Your task to perform on an android device: Go to Android settings Image 0: 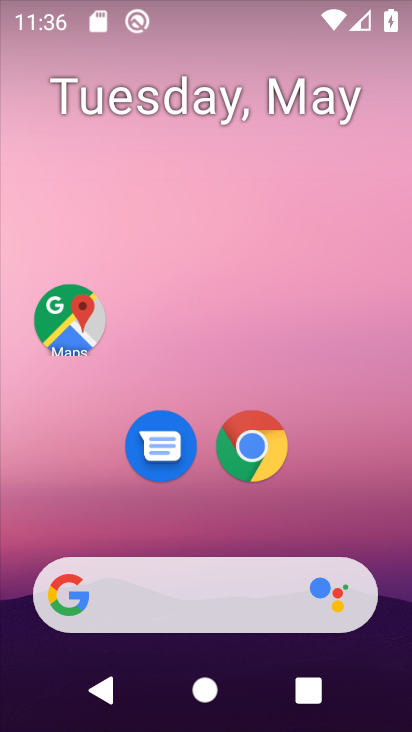
Step 0: press home button
Your task to perform on an android device: Go to Android settings Image 1: 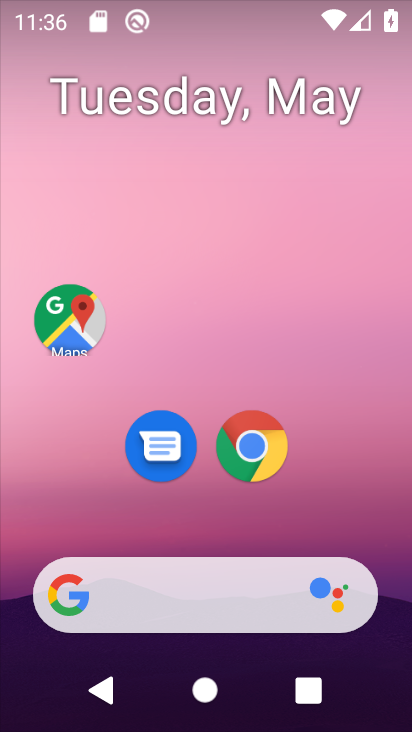
Step 1: drag from (378, 418) to (319, 25)
Your task to perform on an android device: Go to Android settings Image 2: 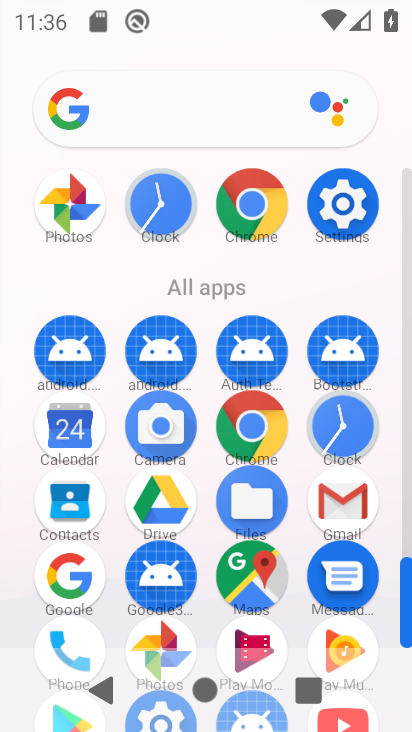
Step 2: click (338, 199)
Your task to perform on an android device: Go to Android settings Image 3: 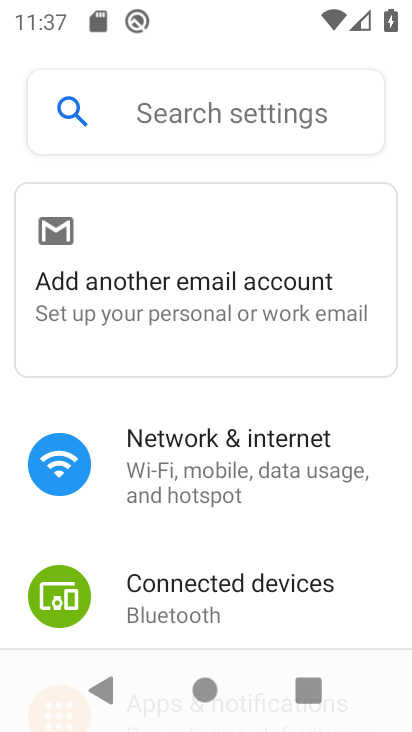
Step 3: drag from (317, 599) to (285, 259)
Your task to perform on an android device: Go to Android settings Image 4: 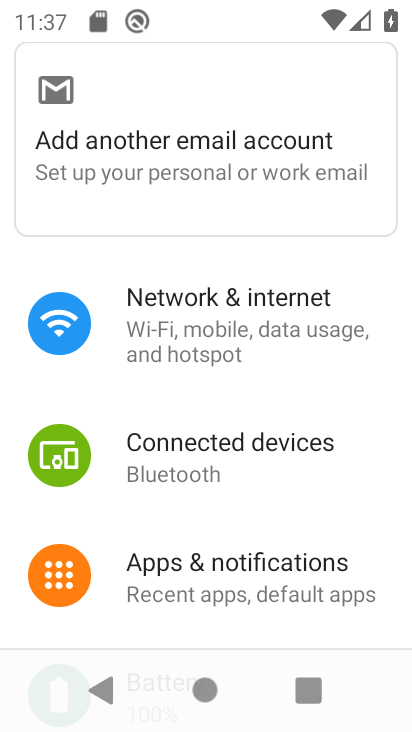
Step 4: drag from (329, 558) to (293, 274)
Your task to perform on an android device: Go to Android settings Image 5: 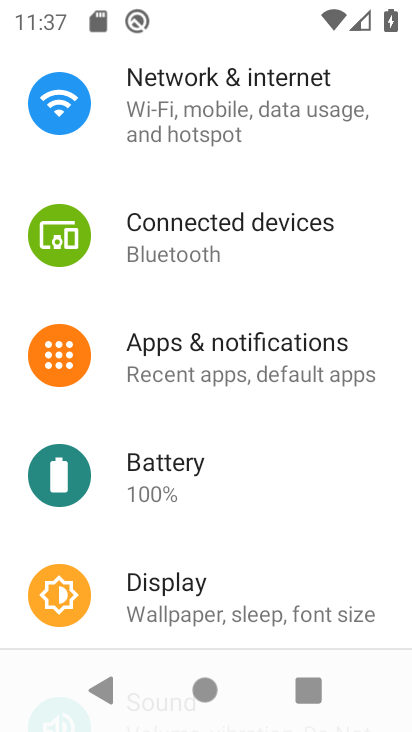
Step 5: drag from (299, 500) to (304, 220)
Your task to perform on an android device: Go to Android settings Image 6: 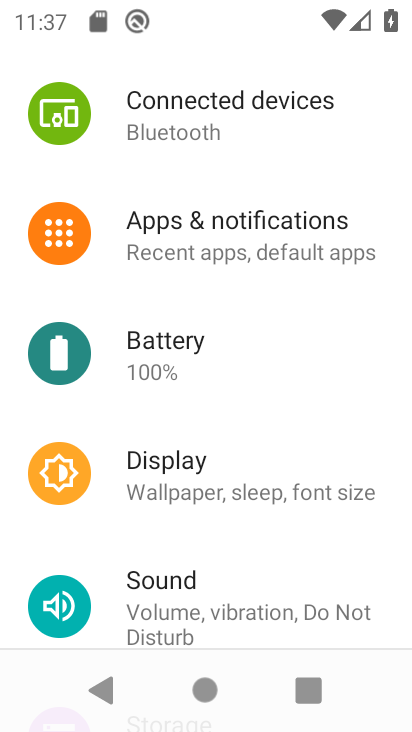
Step 6: drag from (290, 573) to (267, 320)
Your task to perform on an android device: Go to Android settings Image 7: 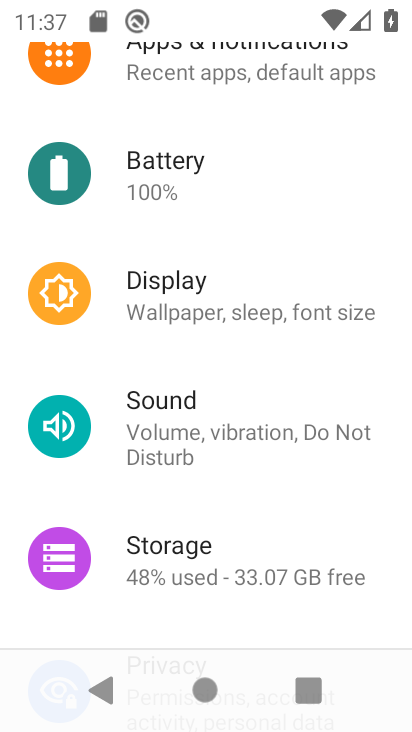
Step 7: drag from (260, 561) to (214, 347)
Your task to perform on an android device: Go to Android settings Image 8: 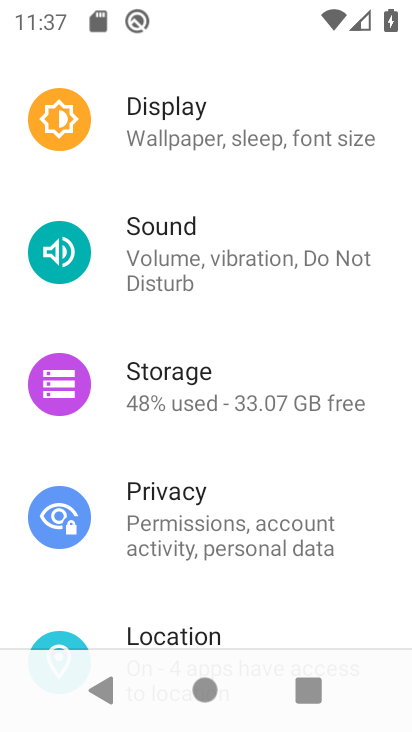
Step 8: drag from (304, 696) to (302, 605)
Your task to perform on an android device: Go to Android settings Image 9: 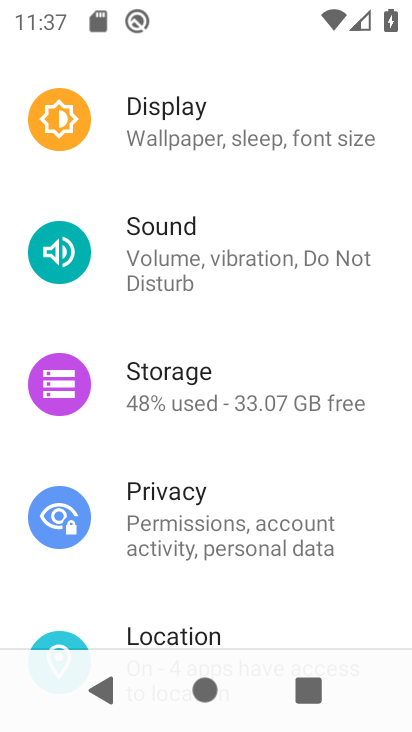
Step 9: drag from (297, 584) to (307, 244)
Your task to perform on an android device: Go to Android settings Image 10: 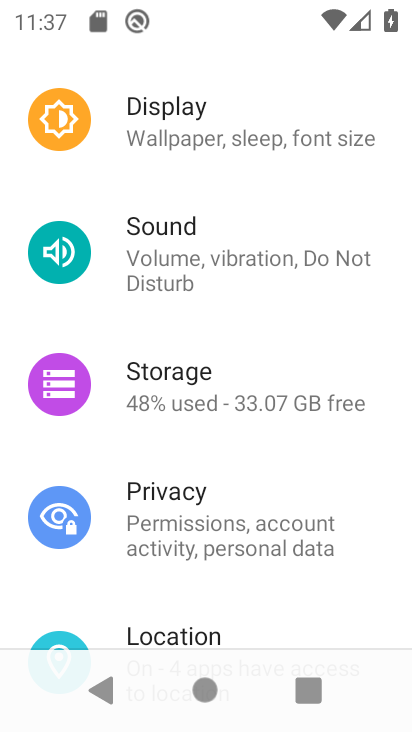
Step 10: drag from (186, 593) to (203, 446)
Your task to perform on an android device: Go to Android settings Image 11: 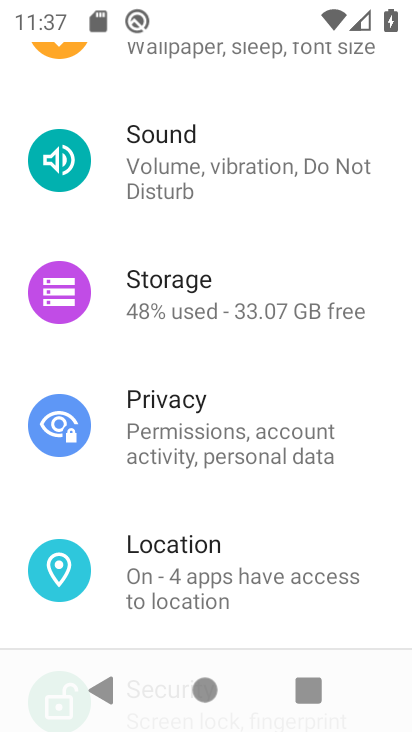
Step 11: drag from (203, 610) to (200, 560)
Your task to perform on an android device: Go to Android settings Image 12: 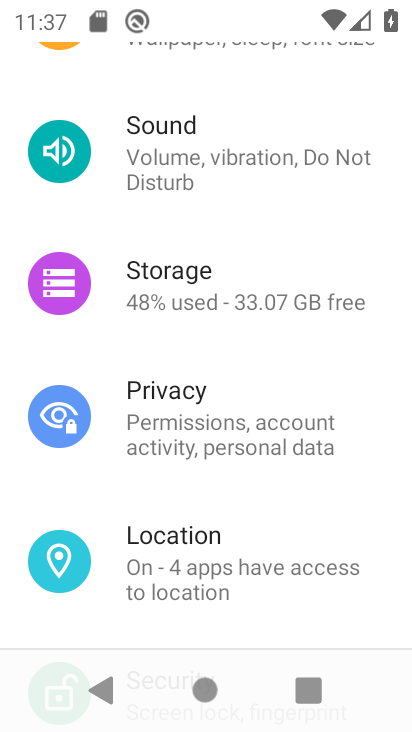
Step 12: drag from (202, 553) to (88, 17)
Your task to perform on an android device: Go to Android settings Image 13: 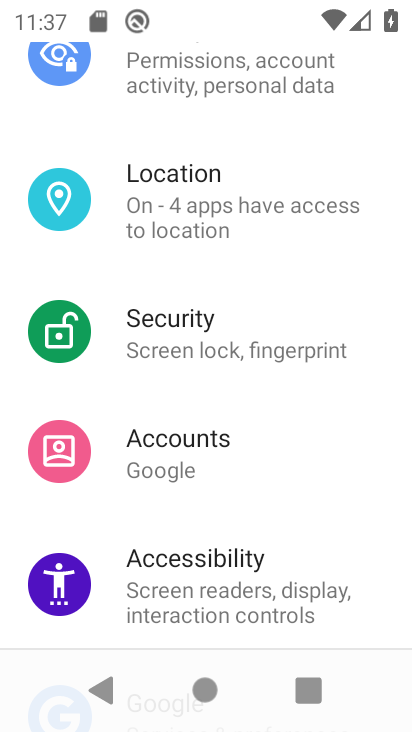
Step 13: drag from (222, 597) to (212, 14)
Your task to perform on an android device: Go to Android settings Image 14: 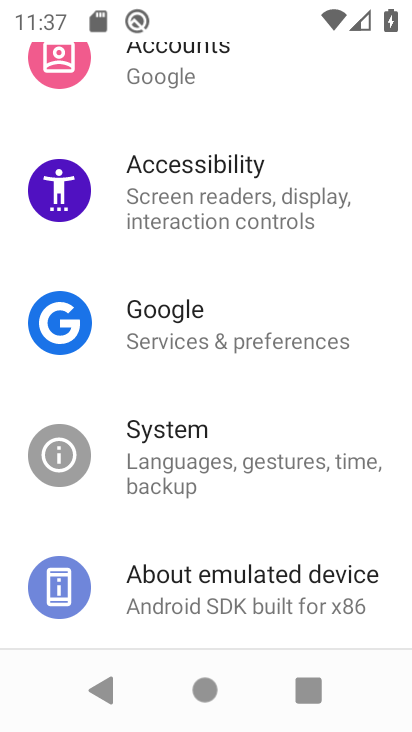
Step 14: click (129, 576)
Your task to perform on an android device: Go to Android settings Image 15: 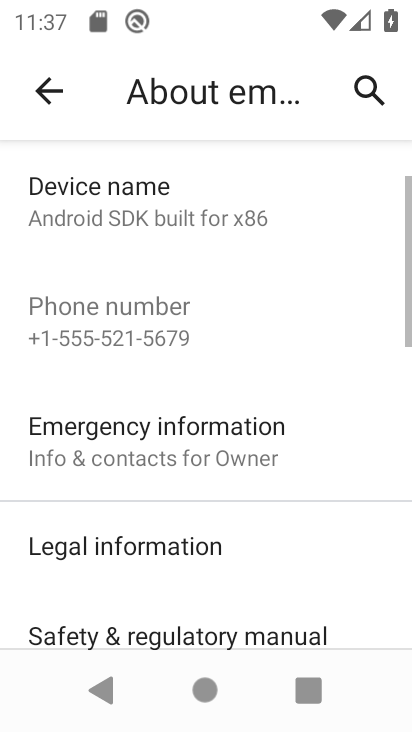
Step 15: drag from (220, 543) to (275, 123)
Your task to perform on an android device: Go to Android settings Image 16: 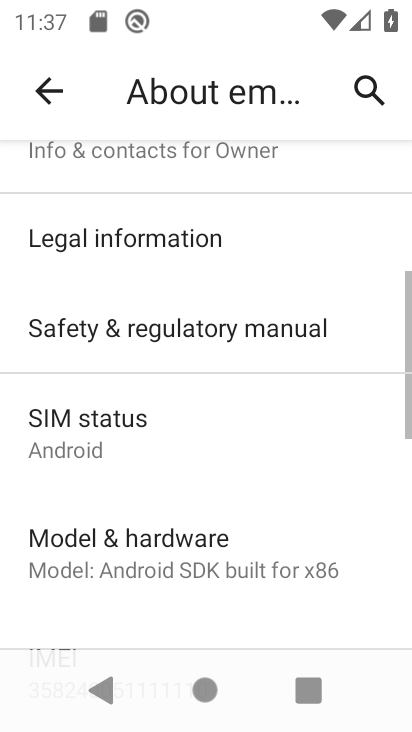
Step 16: drag from (162, 561) to (177, 240)
Your task to perform on an android device: Go to Android settings Image 17: 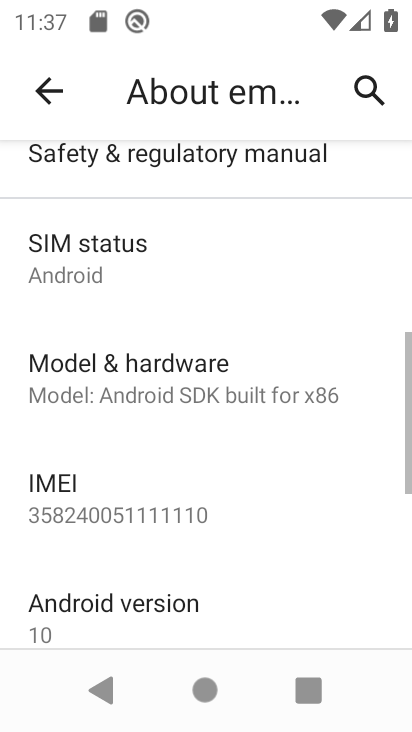
Step 17: click (159, 608)
Your task to perform on an android device: Go to Android settings Image 18: 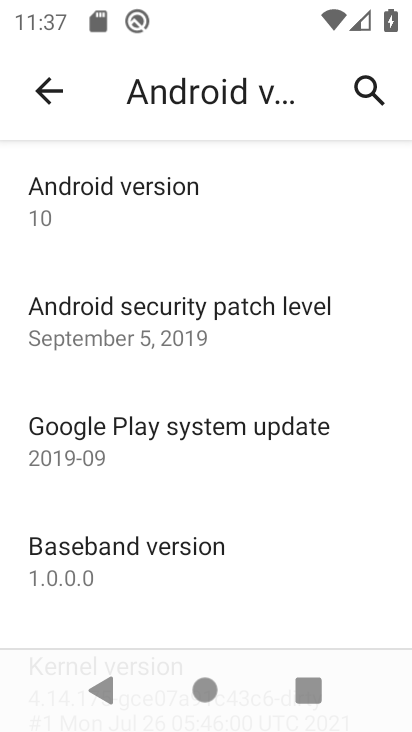
Step 18: task complete